Your task to perform on an android device: uninstall "PUBG MOBILE" Image 0: 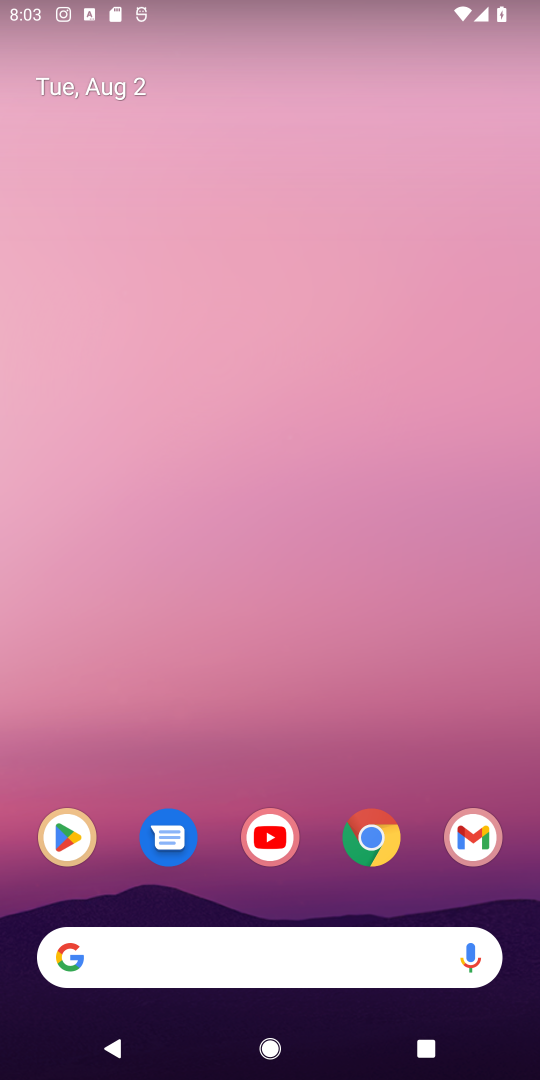
Step 0: click (73, 847)
Your task to perform on an android device: uninstall "PUBG MOBILE" Image 1: 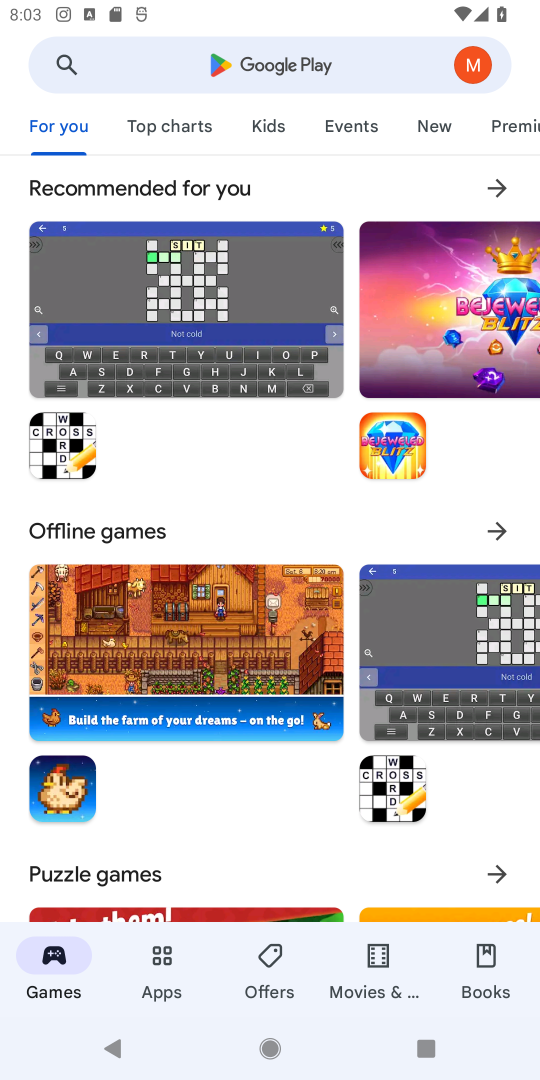
Step 1: click (169, 68)
Your task to perform on an android device: uninstall "PUBG MOBILE" Image 2: 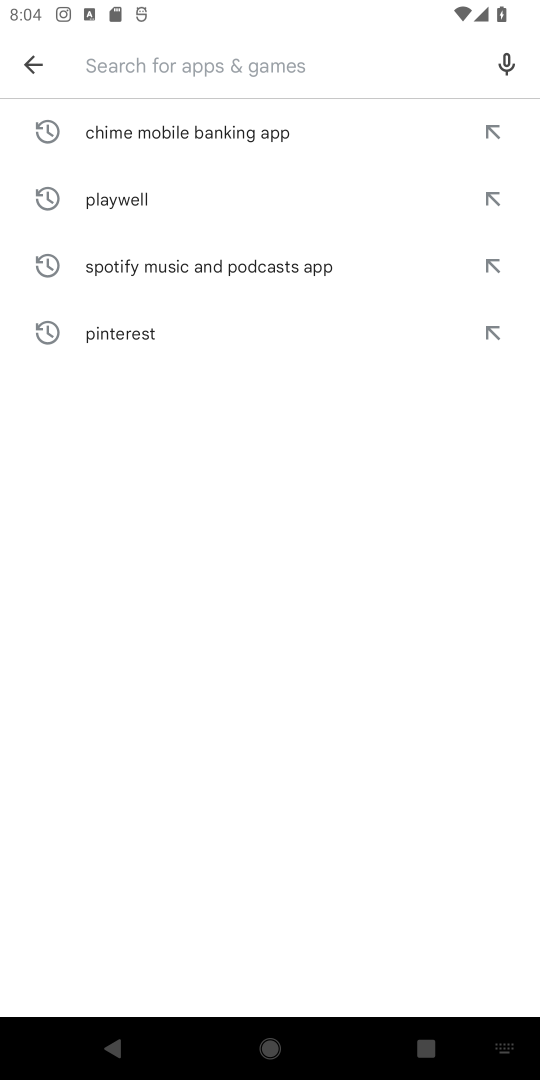
Step 2: type "PUBG MOBILE"
Your task to perform on an android device: uninstall "PUBG MOBILE" Image 3: 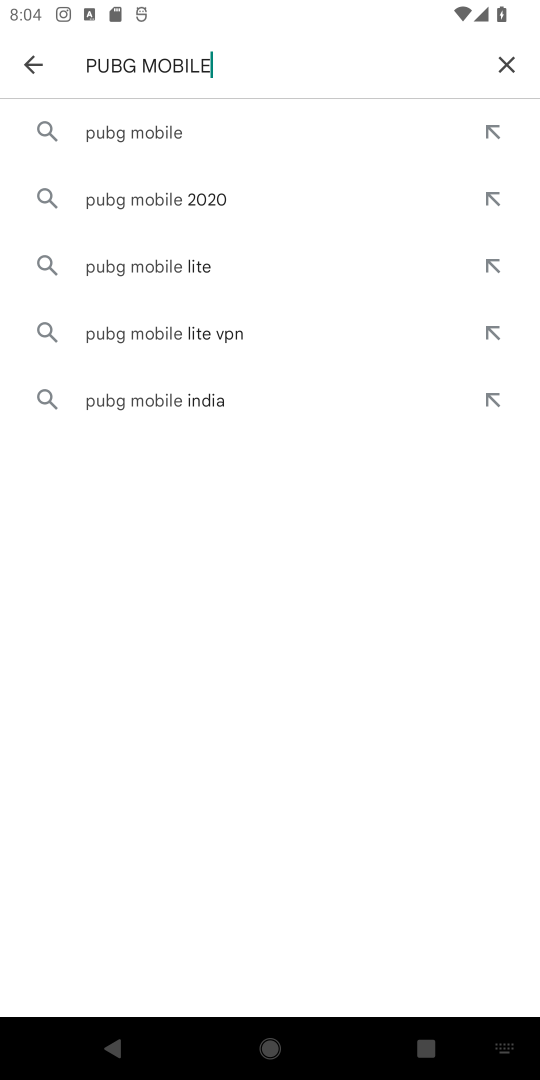
Step 3: click (117, 140)
Your task to perform on an android device: uninstall "PUBG MOBILE" Image 4: 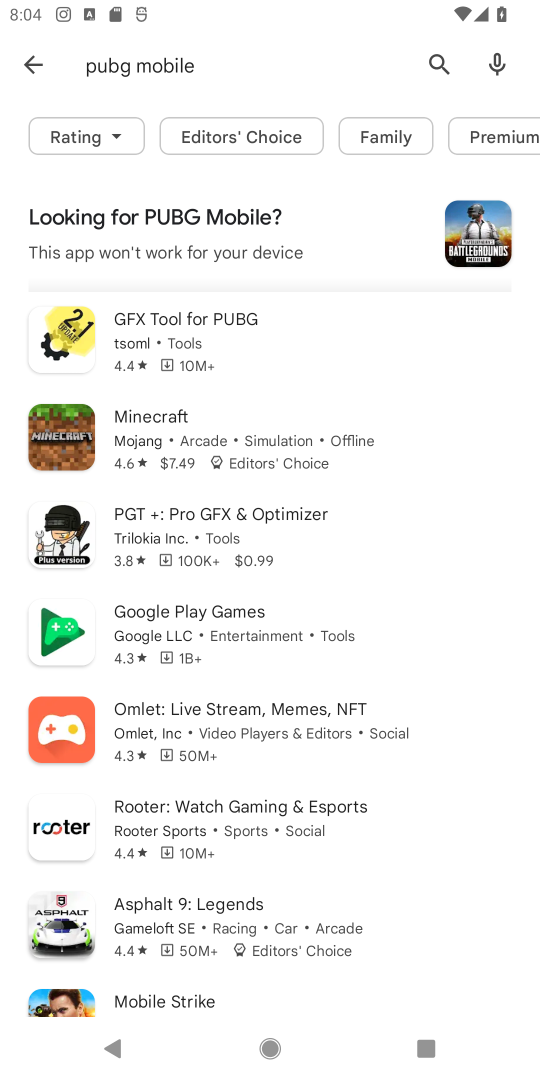
Step 4: task complete